Your task to perform on an android device: toggle sleep mode Image 0: 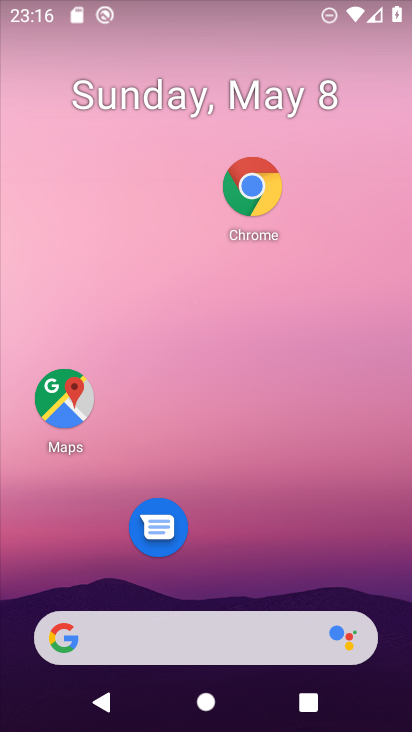
Step 0: drag from (309, 479) to (341, 278)
Your task to perform on an android device: toggle sleep mode Image 1: 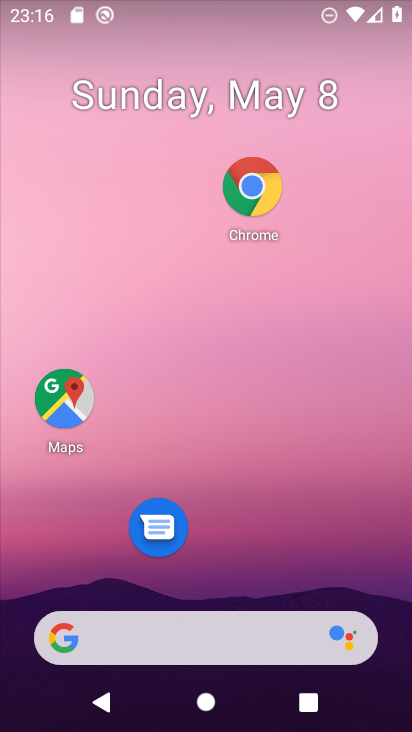
Step 1: drag from (310, 544) to (371, 217)
Your task to perform on an android device: toggle sleep mode Image 2: 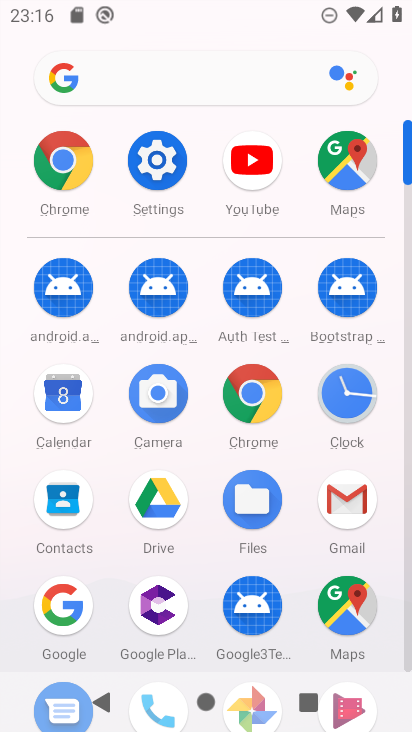
Step 2: click (154, 177)
Your task to perform on an android device: toggle sleep mode Image 3: 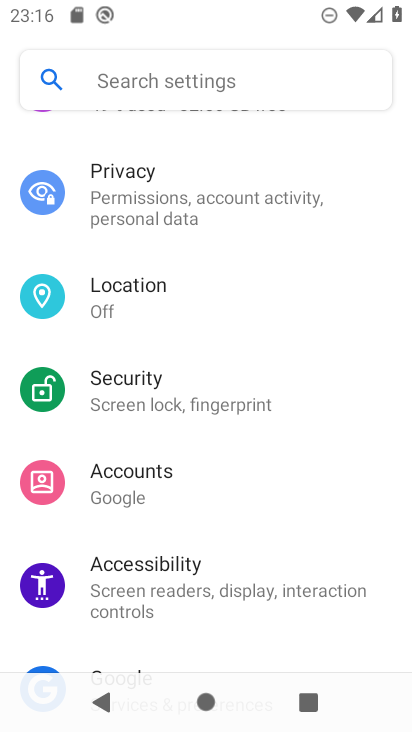
Step 3: task complete